Your task to perform on an android device: What is the news today? Image 0: 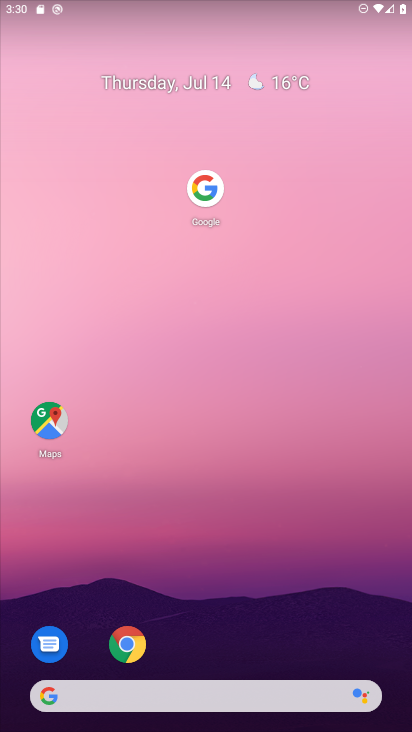
Step 0: drag from (215, 639) to (206, 194)
Your task to perform on an android device: What is the news today? Image 1: 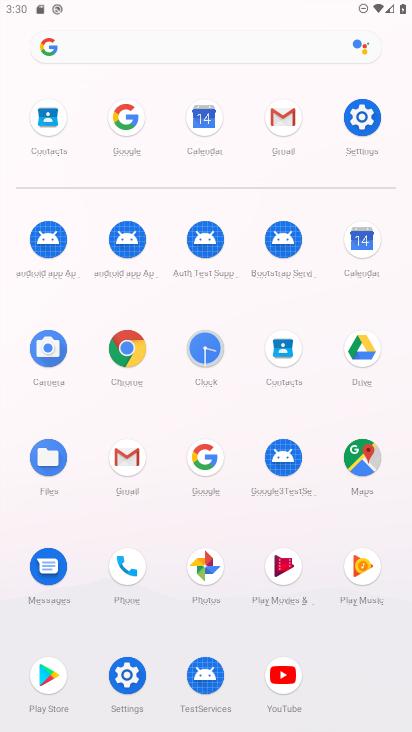
Step 1: click (195, 469)
Your task to perform on an android device: What is the news today? Image 2: 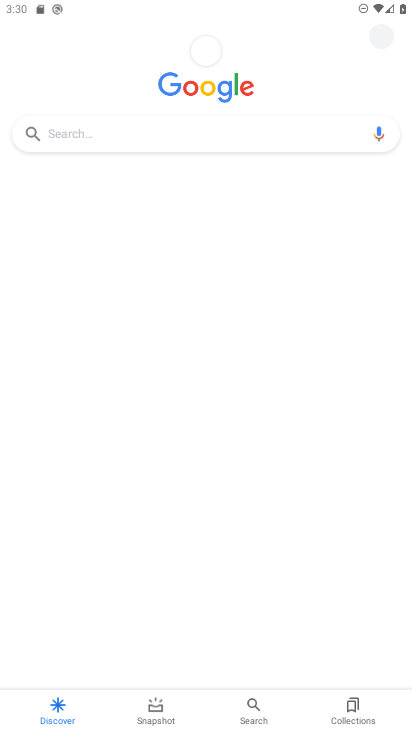
Step 2: drag from (133, 139) to (83, 139)
Your task to perform on an android device: What is the news today? Image 3: 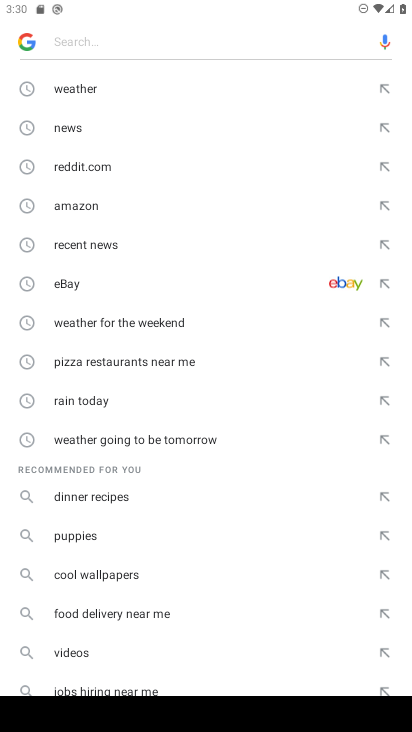
Step 3: click (96, 127)
Your task to perform on an android device: What is the news today? Image 4: 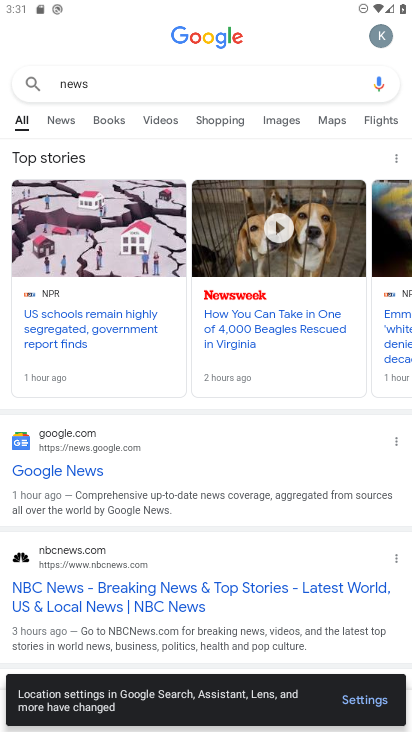
Step 4: click (65, 126)
Your task to perform on an android device: What is the news today? Image 5: 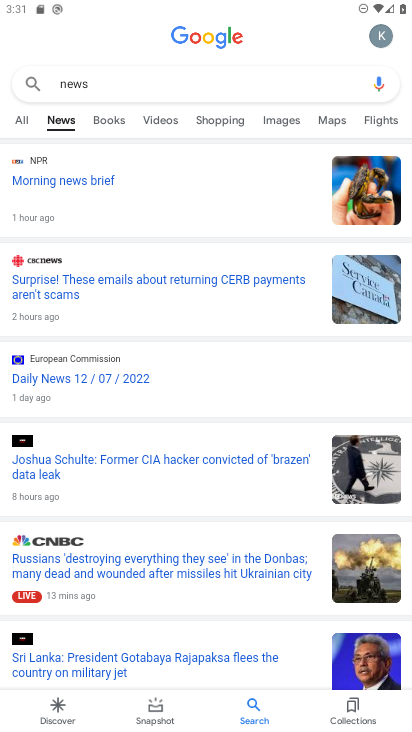
Step 5: task complete